Your task to perform on an android device: Go to Maps Image 0: 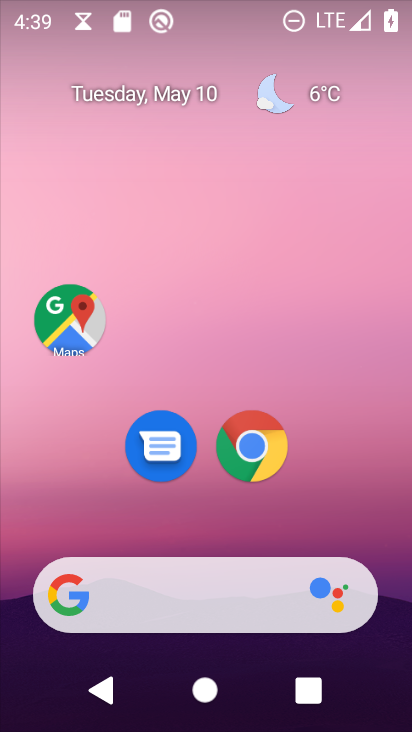
Step 0: click (63, 329)
Your task to perform on an android device: Go to Maps Image 1: 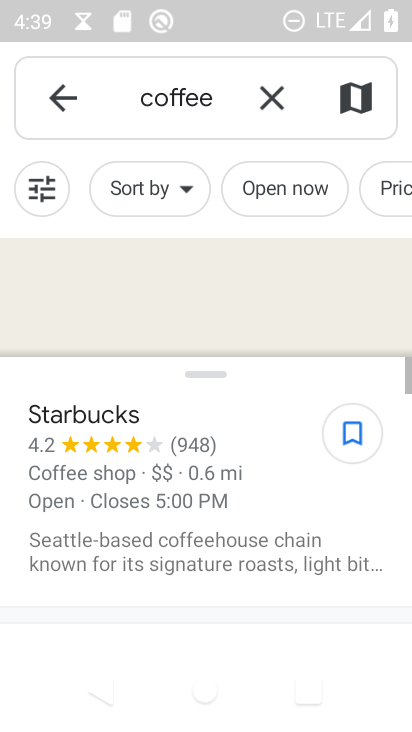
Step 1: task complete